Your task to perform on an android device: Do I have any events today? Image 0: 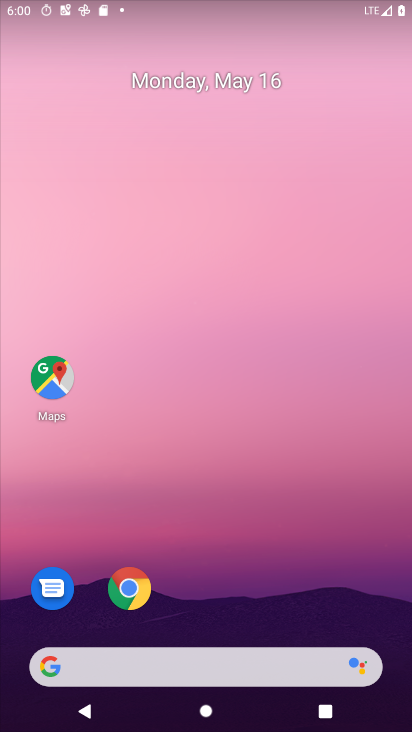
Step 0: drag from (277, 548) to (188, 64)
Your task to perform on an android device: Do I have any events today? Image 1: 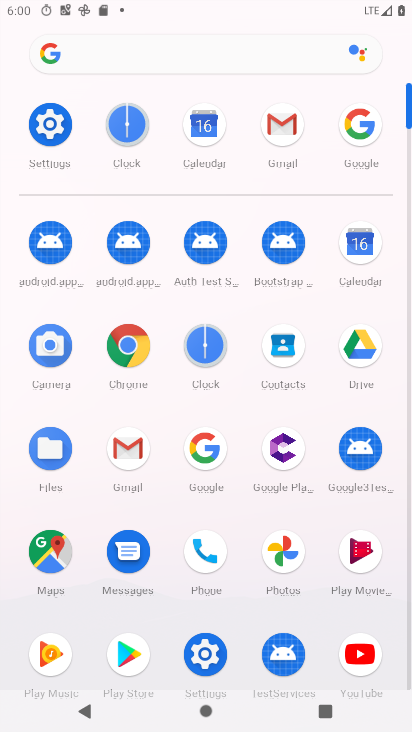
Step 1: click (356, 242)
Your task to perform on an android device: Do I have any events today? Image 2: 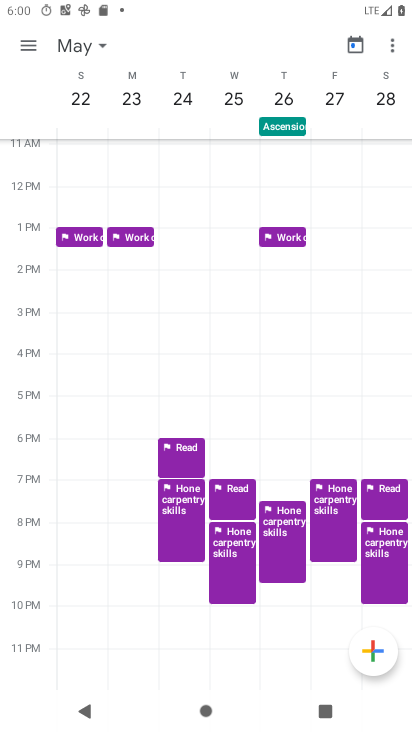
Step 2: click (25, 39)
Your task to perform on an android device: Do I have any events today? Image 3: 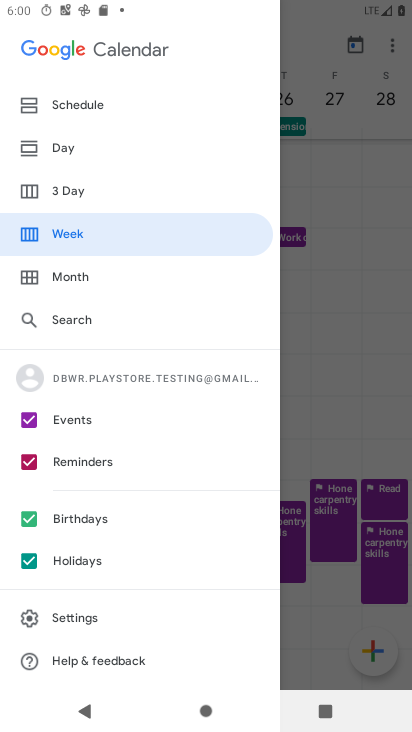
Step 3: click (63, 149)
Your task to perform on an android device: Do I have any events today? Image 4: 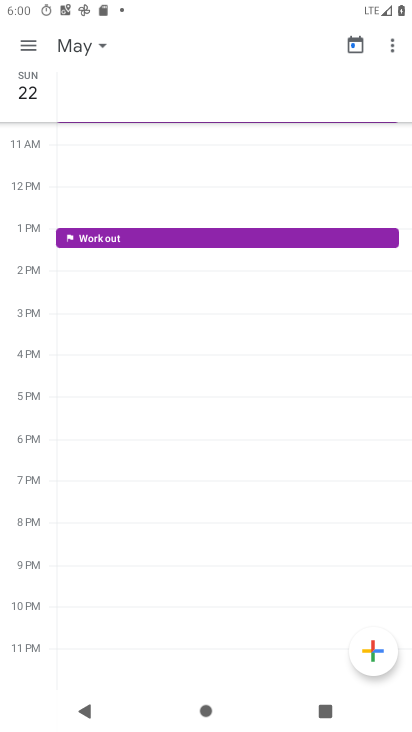
Step 4: click (99, 49)
Your task to perform on an android device: Do I have any events today? Image 5: 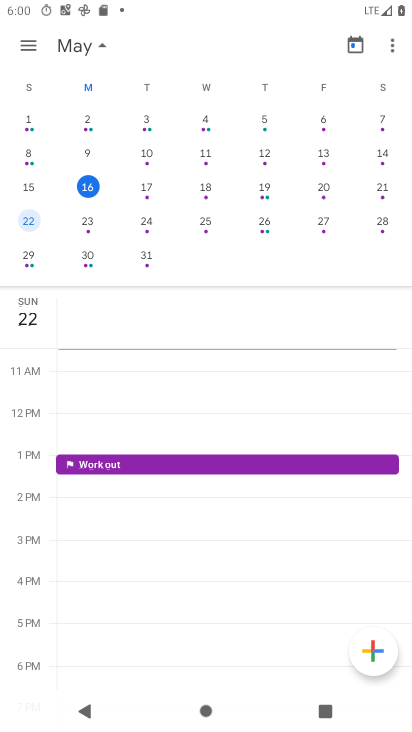
Step 5: click (84, 187)
Your task to perform on an android device: Do I have any events today? Image 6: 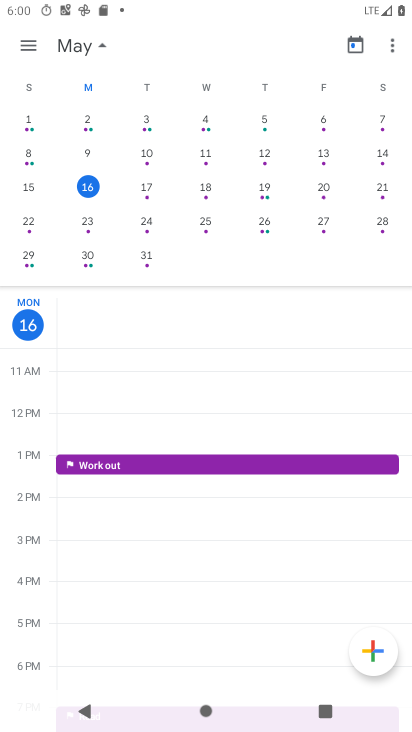
Step 6: task complete